Your task to perform on an android device: toggle notification dots Image 0: 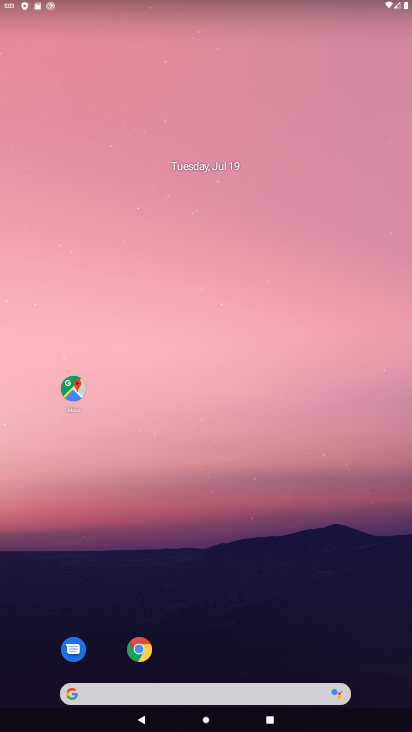
Step 0: drag from (341, 540) to (291, 40)
Your task to perform on an android device: toggle notification dots Image 1: 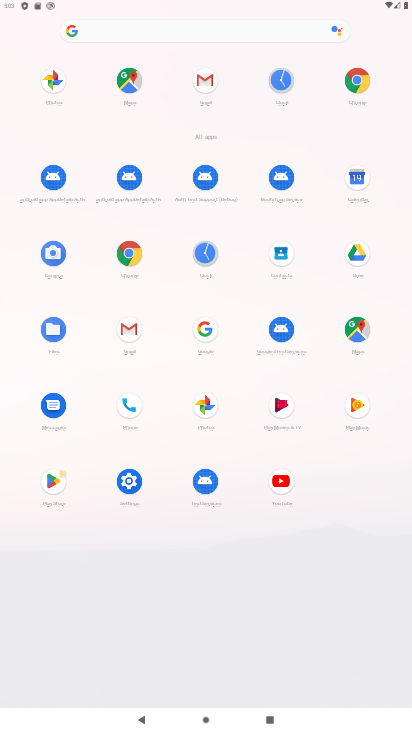
Step 1: click (133, 480)
Your task to perform on an android device: toggle notification dots Image 2: 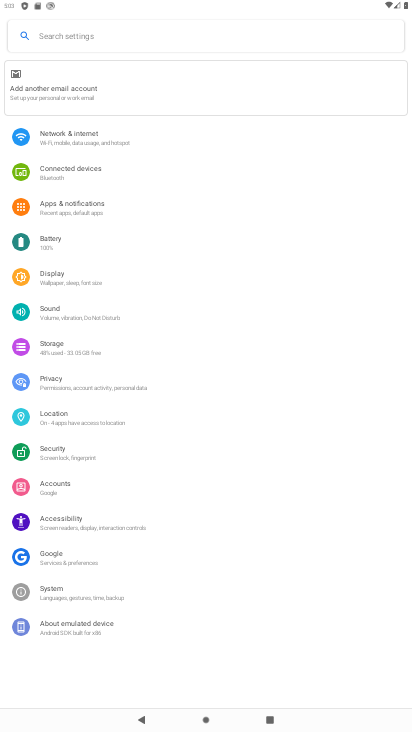
Step 2: click (123, 480)
Your task to perform on an android device: toggle notification dots Image 3: 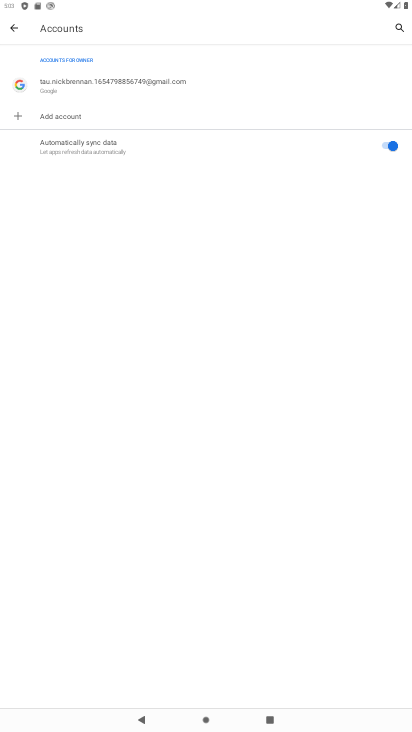
Step 3: click (14, 24)
Your task to perform on an android device: toggle notification dots Image 4: 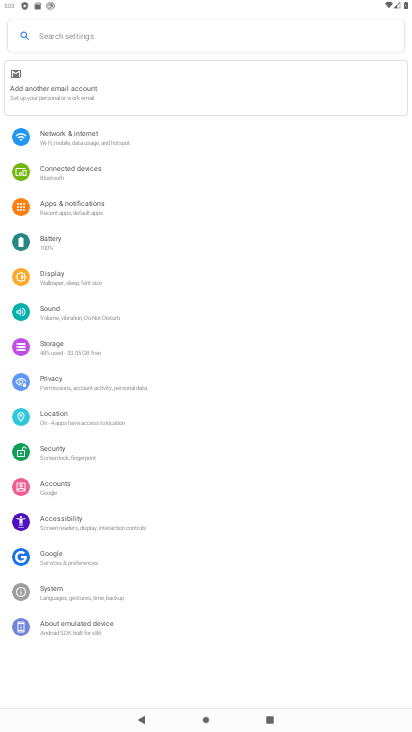
Step 4: click (83, 205)
Your task to perform on an android device: toggle notification dots Image 5: 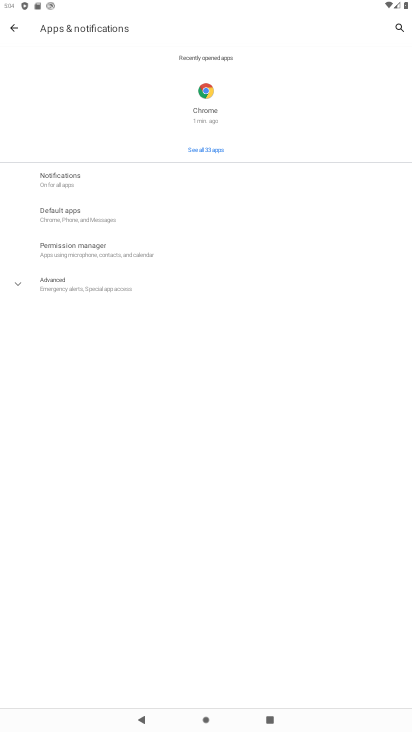
Step 5: click (59, 178)
Your task to perform on an android device: toggle notification dots Image 6: 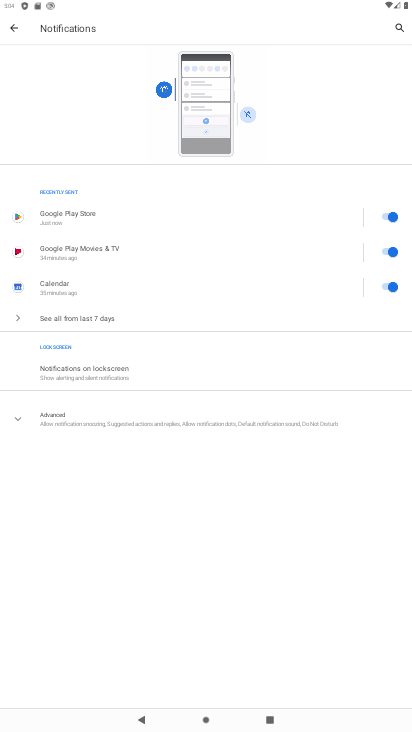
Step 6: click (86, 421)
Your task to perform on an android device: toggle notification dots Image 7: 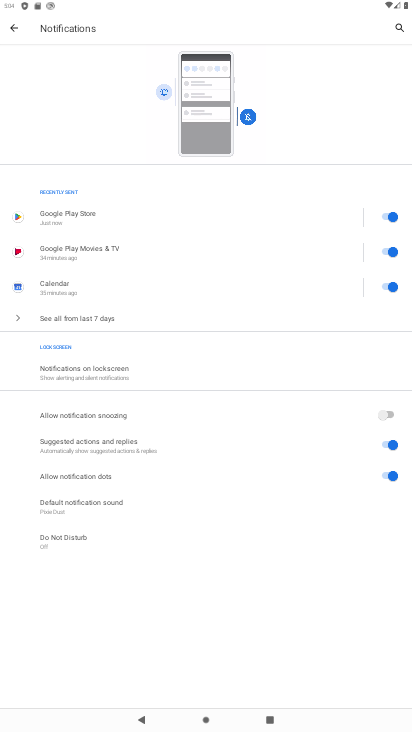
Step 7: task complete